Your task to perform on an android device: Open Wikipedia Image 0: 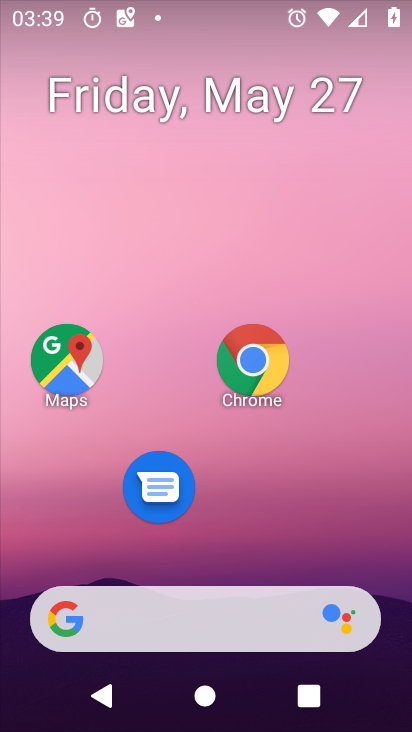
Step 0: drag from (216, 528) to (254, 74)
Your task to perform on an android device: Open Wikipedia Image 1: 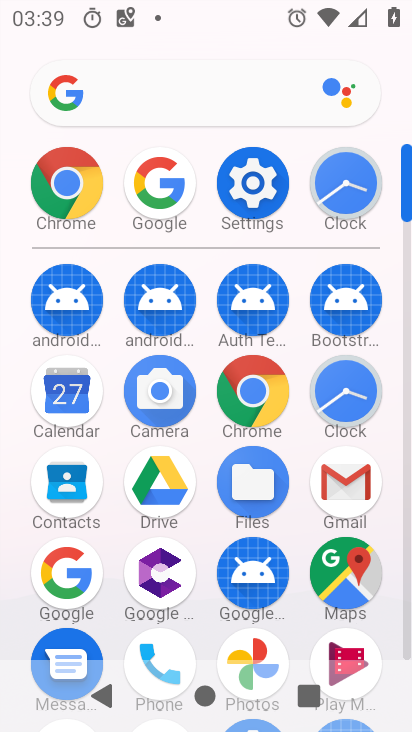
Step 1: click (251, 396)
Your task to perform on an android device: Open Wikipedia Image 2: 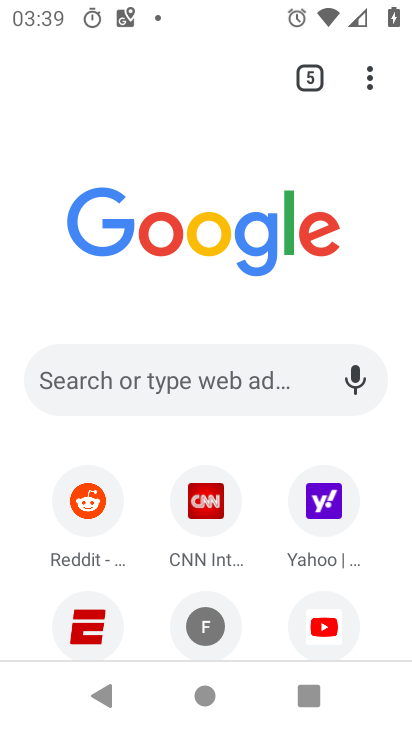
Step 2: drag from (274, 563) to (258, 335)
Your task to perform on an android device: Open Wikipedia Image 3: 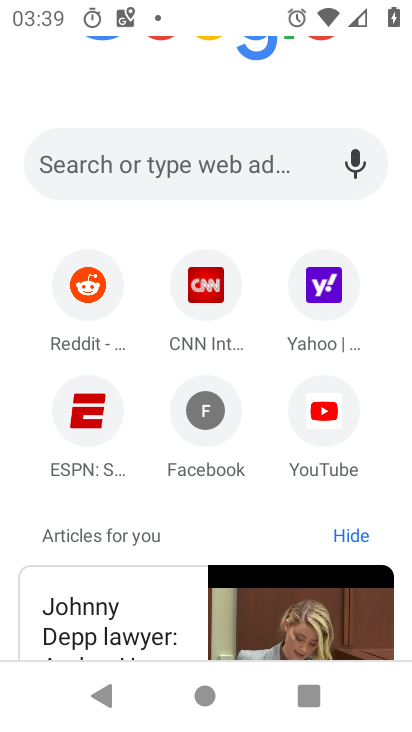
Step 3: click (171, 164)
Your task to perform on an android device: Open Wikipedia Image 4: 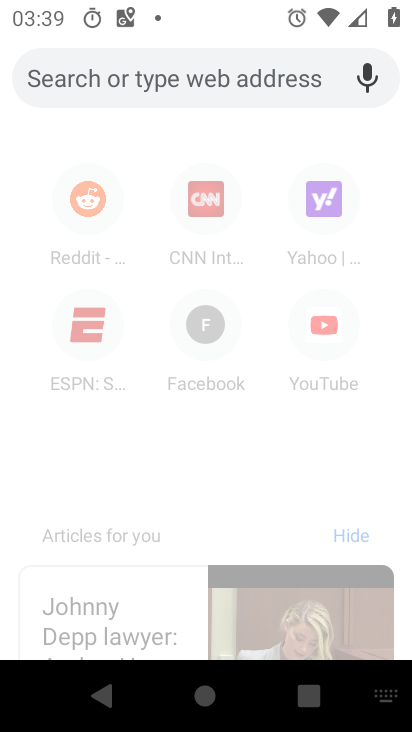
Step 4: type "wikkipedia"
Your task to perform on an android device: Open Wikipedia Image 5: 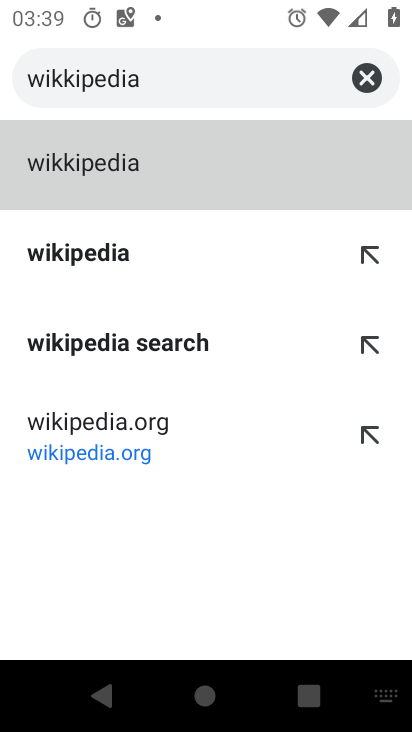
Step 5: click (167, 162)
Your task to perform on an android device: Open Wikipedia Image 6: 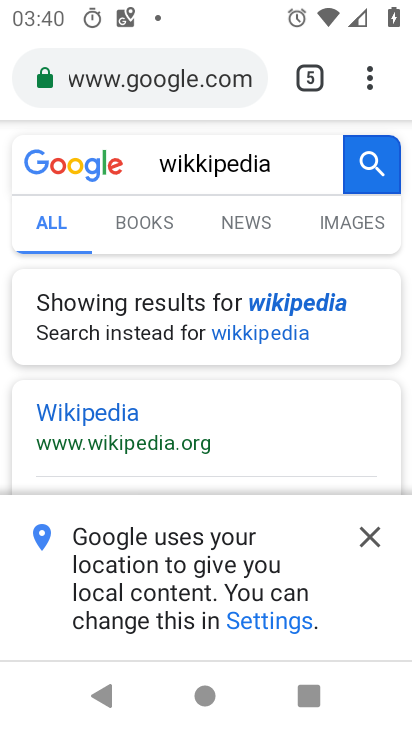
Step 6: click (370, 534)
Your task to perform on an android device: Open Wikipedia Image 7: 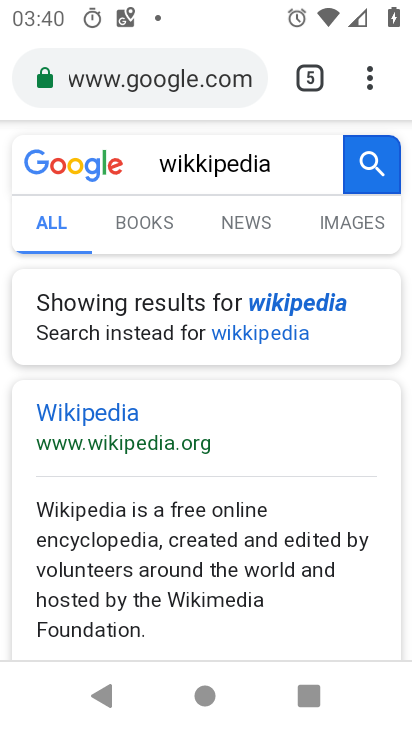
Step 7: drag from (290, 498) to (299, 264)
Your task to perform on an android device: Open Wikipedia Image 8: 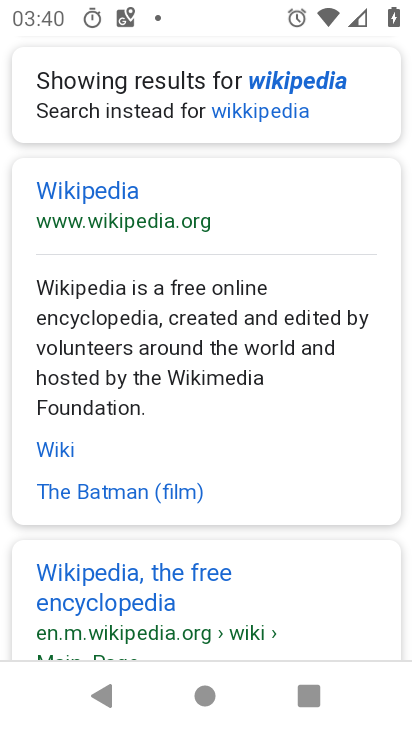
Step 8: click (96, 187)
Your task to perform on an android device: Open Wikipedia Image 9: 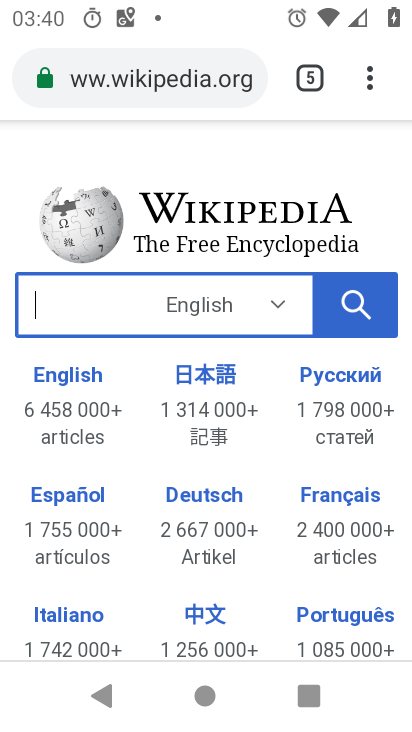
Step 9: task complete